Your task to perform on an android device: Open settings on Google Maps Image 0: 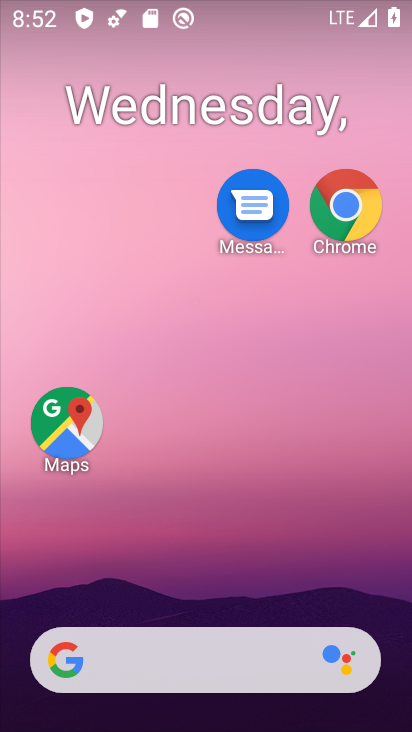
Step 0: drag from (190, 542) to (133, 62)
Your task to perform on an android device: Open settings on Google Maps Image 1: 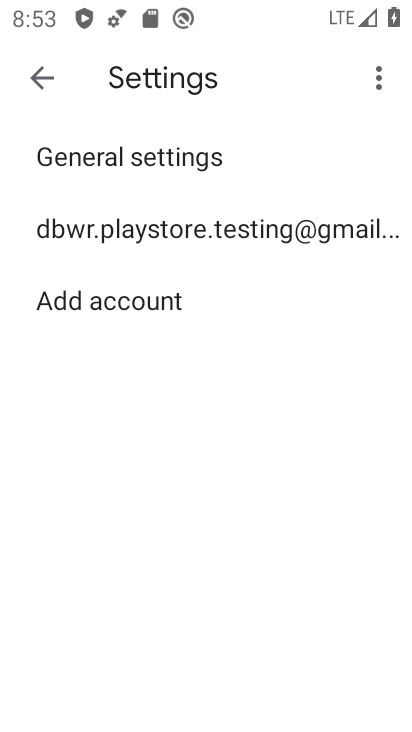
Step 1: press home button
Your task to perform on an android device: Open settings on Google Maps Image 2: 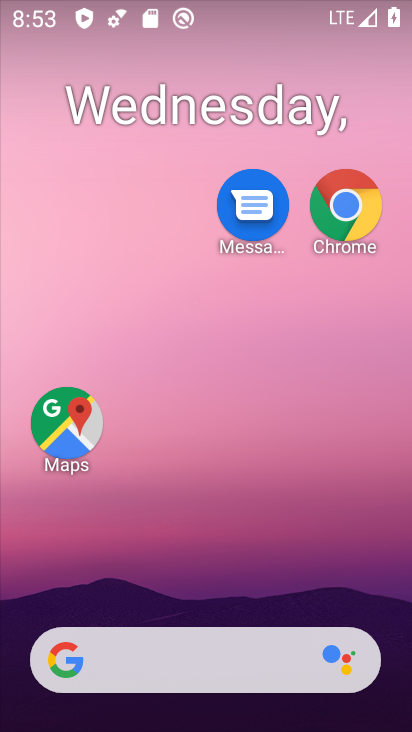
Step 2: drag from (155, 260) to (409, 539)
Your task to perform on an android device: Open settings on Google Maps Image 3: 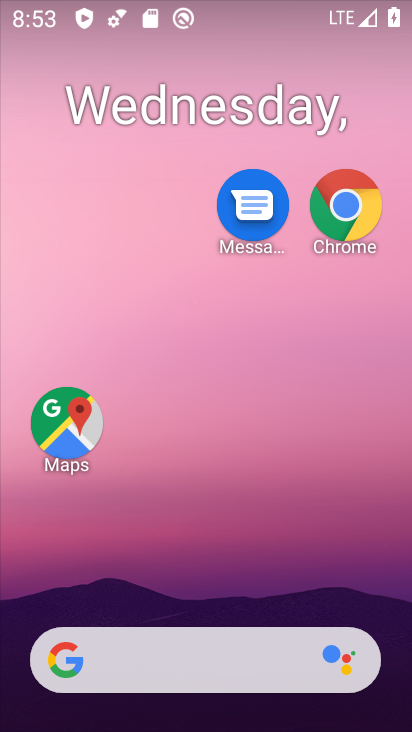
Step 3: drag from (231, 460) to (294, 1)
Your task to perform on an android device: Open settings on Google Maps Image 4: 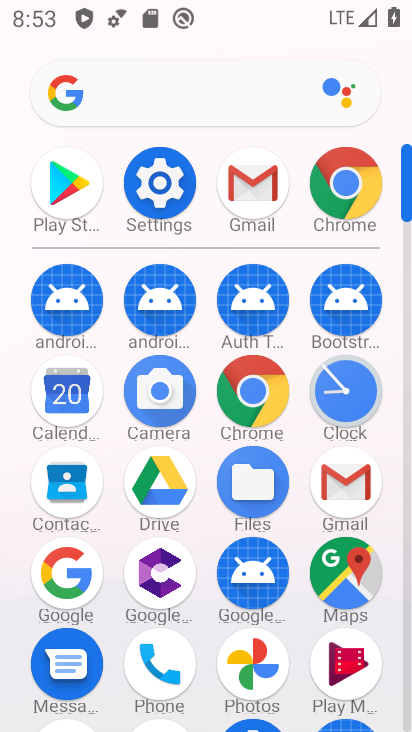
Step 4: click (76, 553)
Your task to perform on an android device: Open settings on Google Maps Image 5: 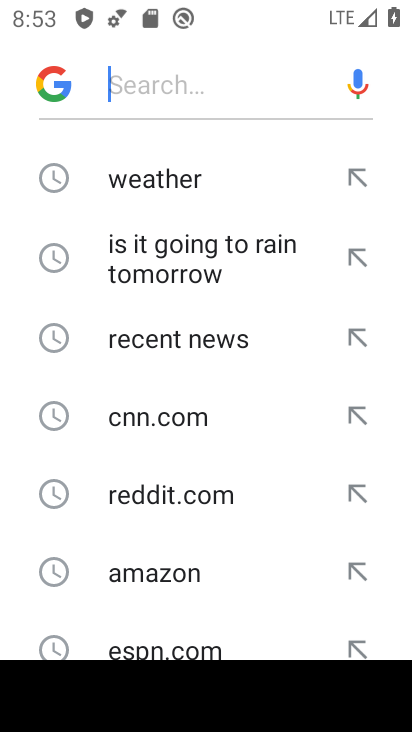
Step 5: press home button
Your task to perform on an android device: Open settings on Google Maps Image 6: 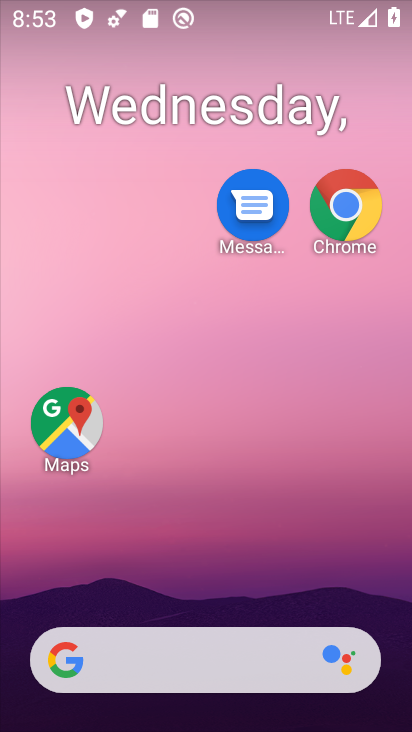
Step 6: click (73, 400)
Your task to perform on an android device: Open settings on Google Maps Image 7: 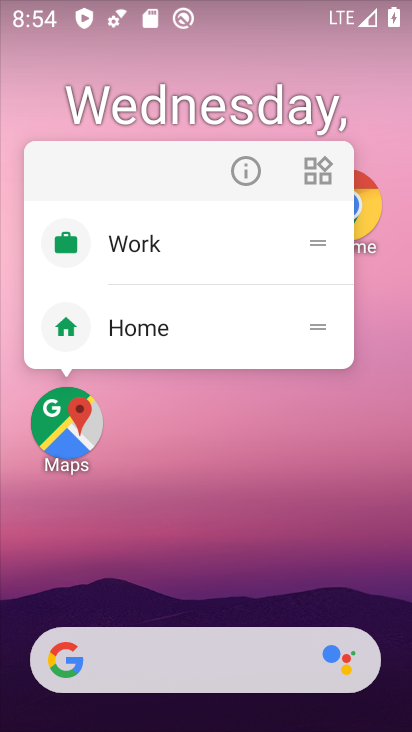
Step 7: click (246, 176)
Your task to perform on an android device: Open settings on Google Maps Image 8: 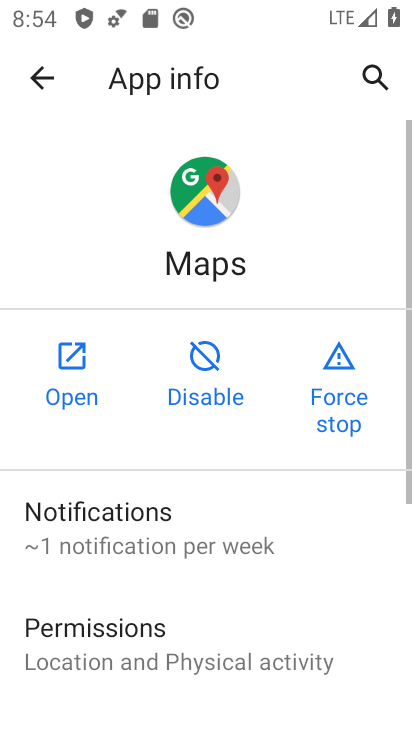
Step 8: click (79, 360)
Your task to perform on an android device: Open settings on Google Maps Image 9: 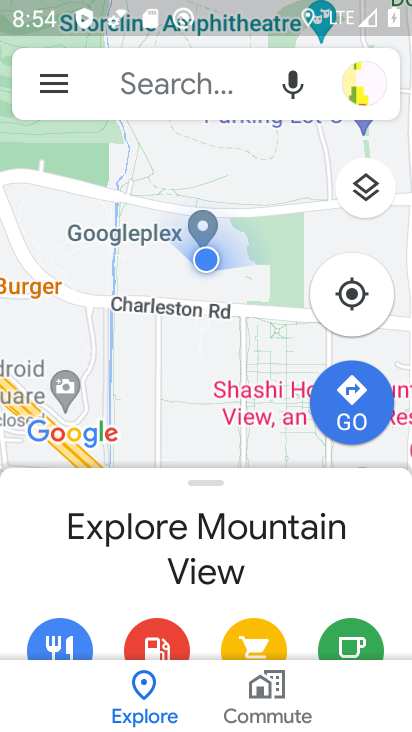
Step 9: drag from (232, 514) to (299, 204)
Your task to perform on an android device: Open settings on Google Maps Image 10: 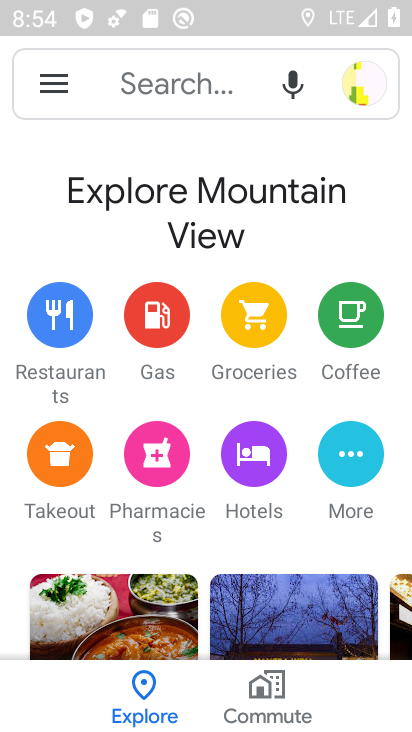
Step 10: click (139, 79)
Your task to perform on an android device: Open settings on Google Maps Image 11: 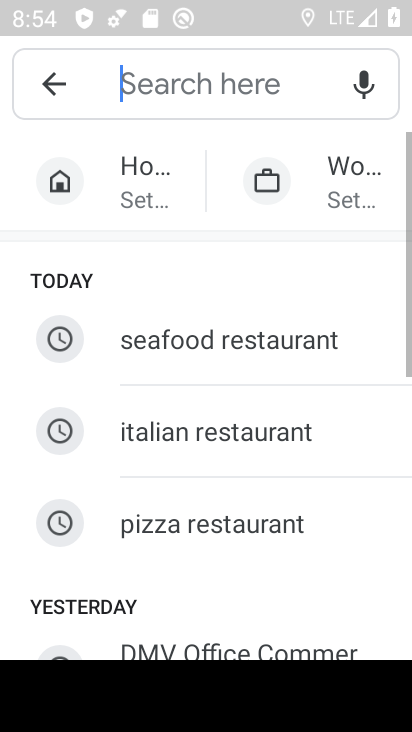
Step 11: task complete